Your task to perform on an android device: check android version Image 0: 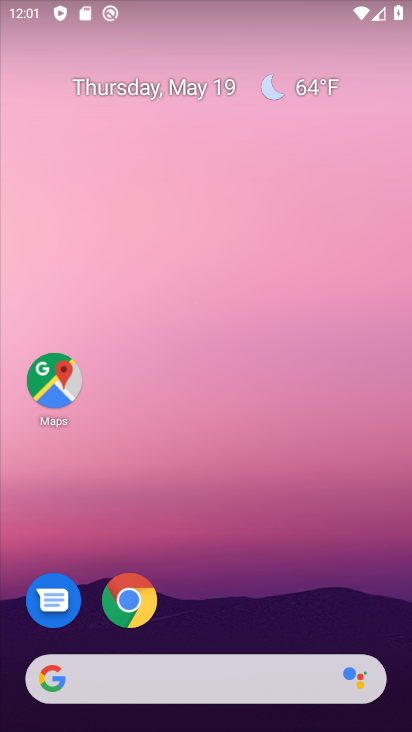
Step 0: drag from (191, 663) to (138, 55)
Your task to perform on an android device: check android version Image 1: 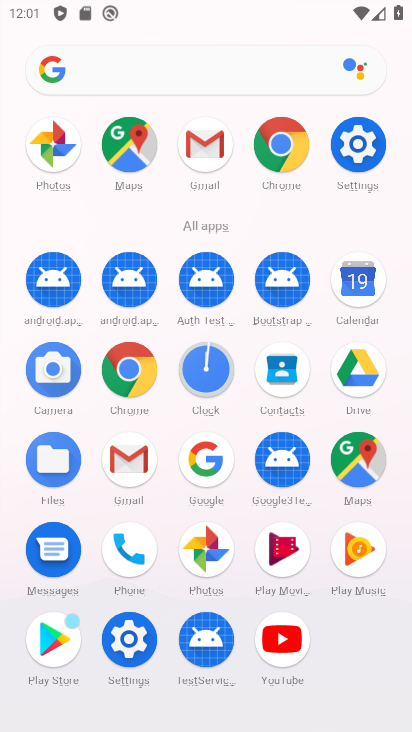
Step 1: click (355, 154)
Your task to perform on an android device: check android version Image 2: 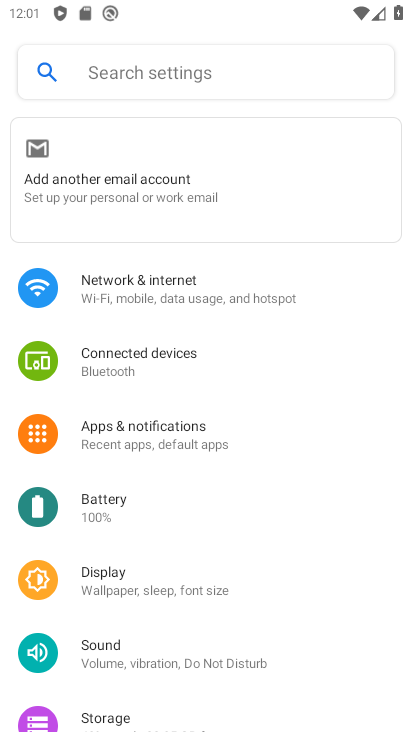
Step 2: drag from (243, 606) to (288, 3)
Your task to perform on an android device: check android version Image 3: 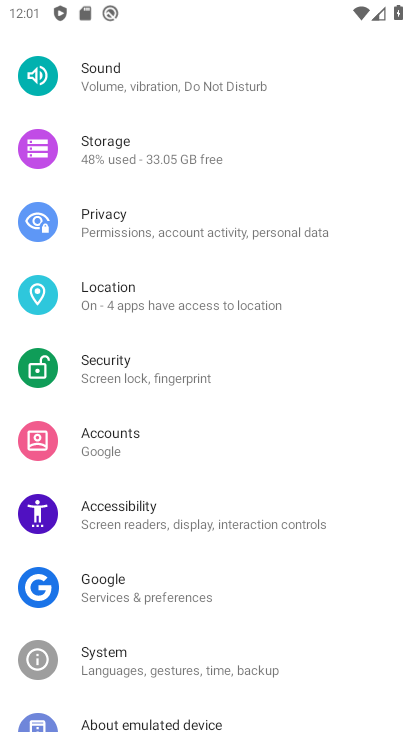
Step 3: drag from (122, 592) to (122, 196)
Your task to perform on an android device: check android version Image 4: 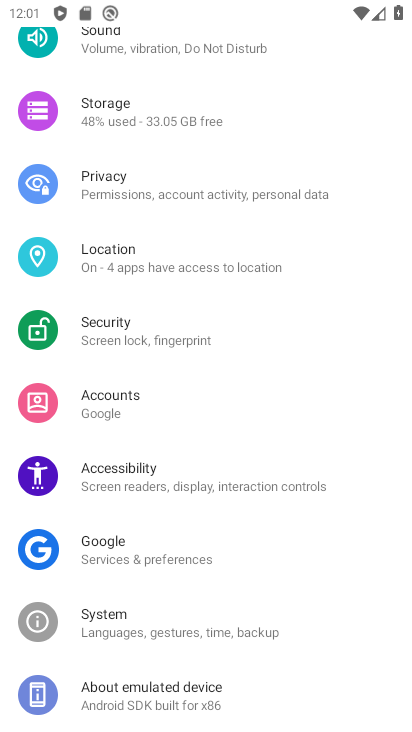
Step 4: click (122, 701)
Your task to perform on an android device: check android version Image 5: 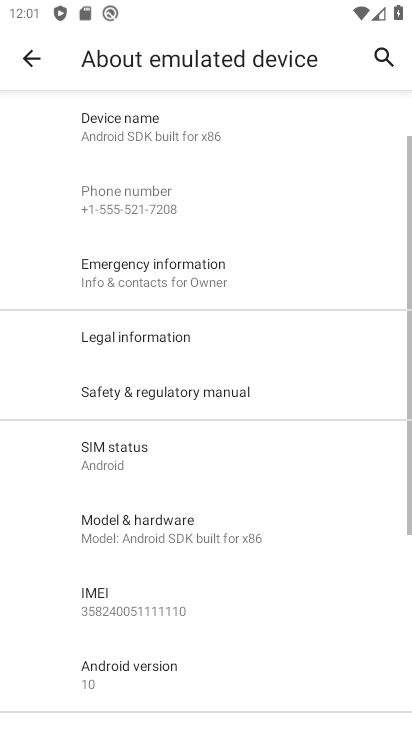
Step 5: click (229, 683)
Your task to perform on an android device: check android version Image 6: 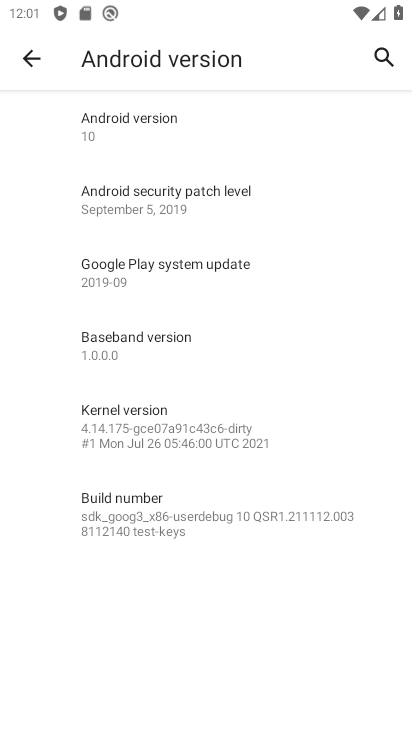
Step 6: click (125, 113)
Your task to perform on an android device: check android version Image 7: 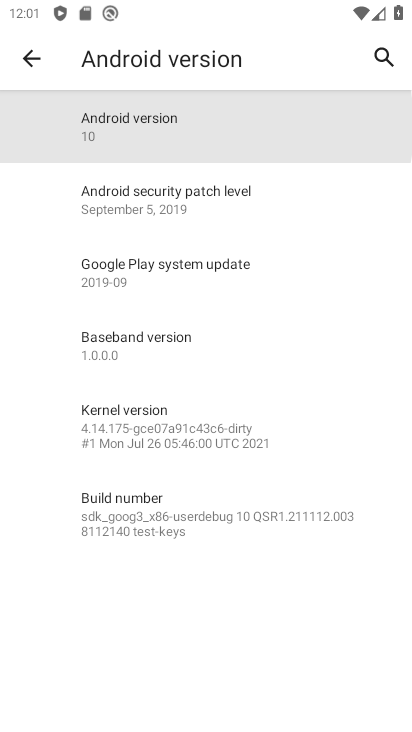
Step 7: task complete